Your task to perform on an android device: Open network settings Image 0: 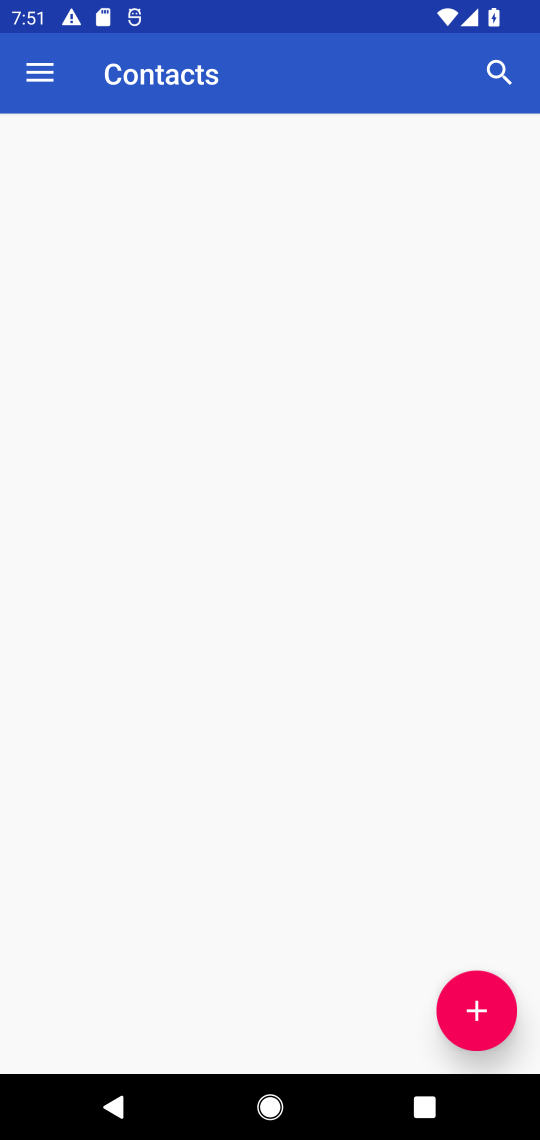
Step 0: press home button
Your task to perform on an android device: Open network settings Image 1: 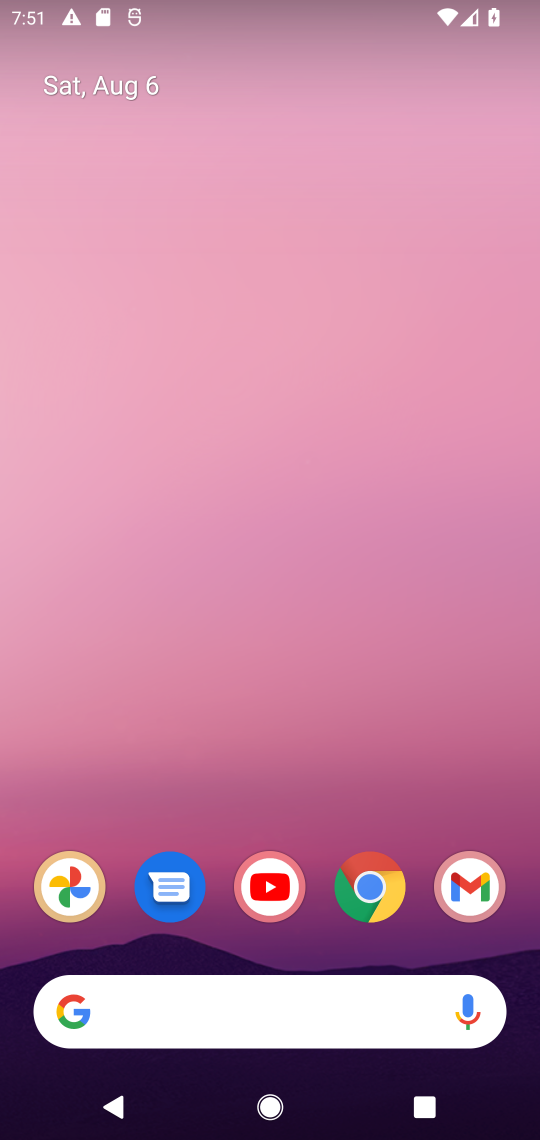
Step 1: drag from (321, 805) to (246, 336)
Your task to perform on an android device: Open network settings Image 2: 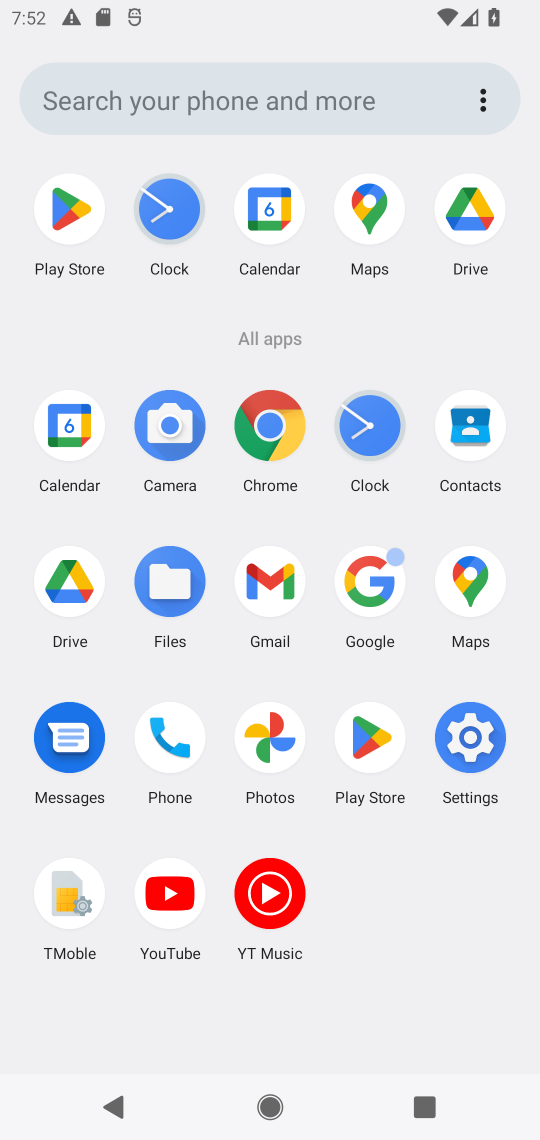
Step 2: click (460, 741)
Your task to perform on an android device: Open network settings Image 3: 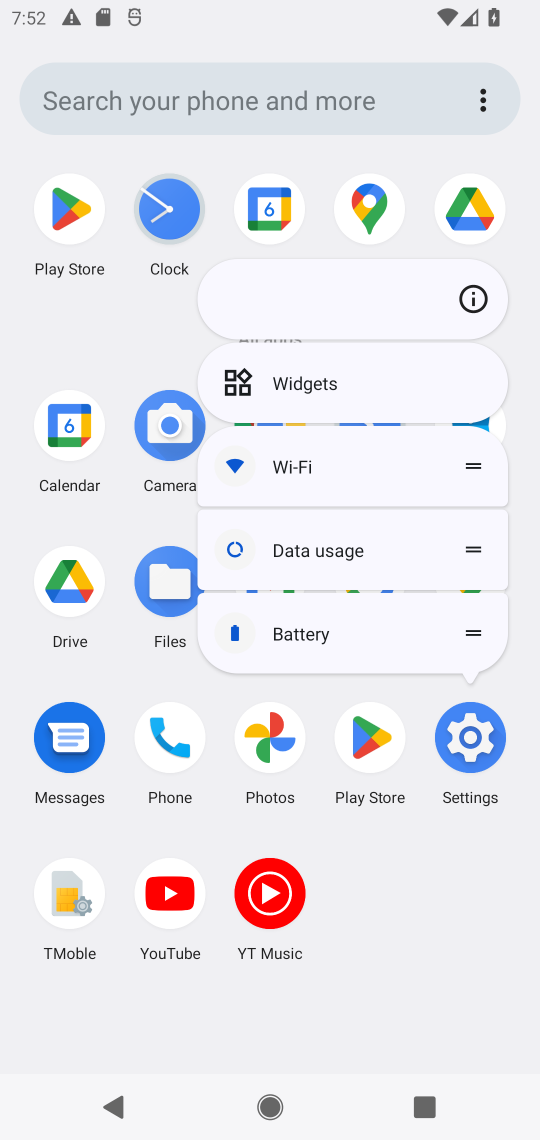
Step 3: click (475, 750)
Your task to perform on an android device: Open network settings Image 4: 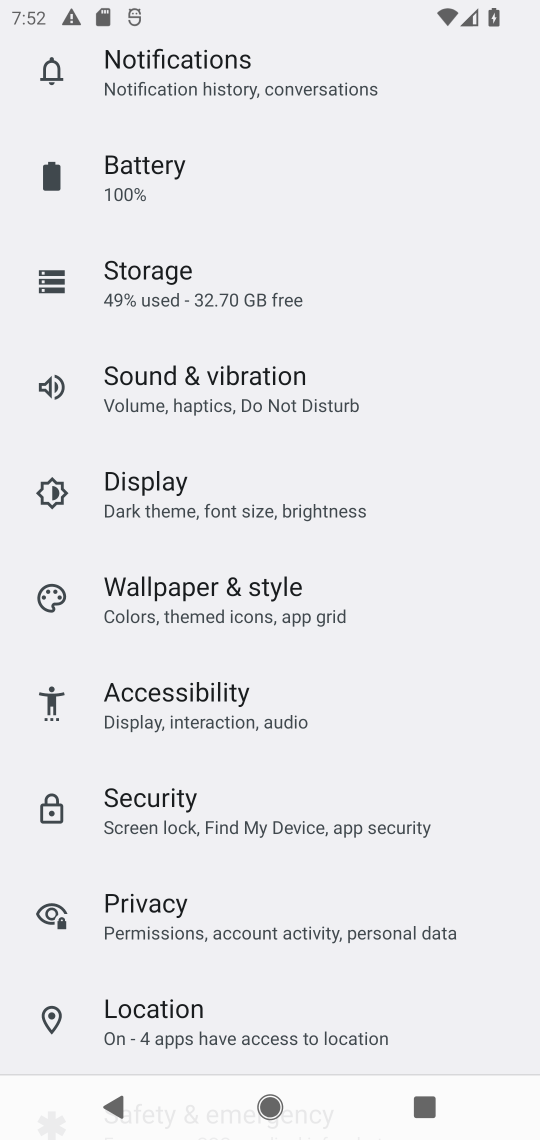
Step 4: drag from (228, 82) to (293, 511)
Your task to perform on an android device: Open network settings Image 5: 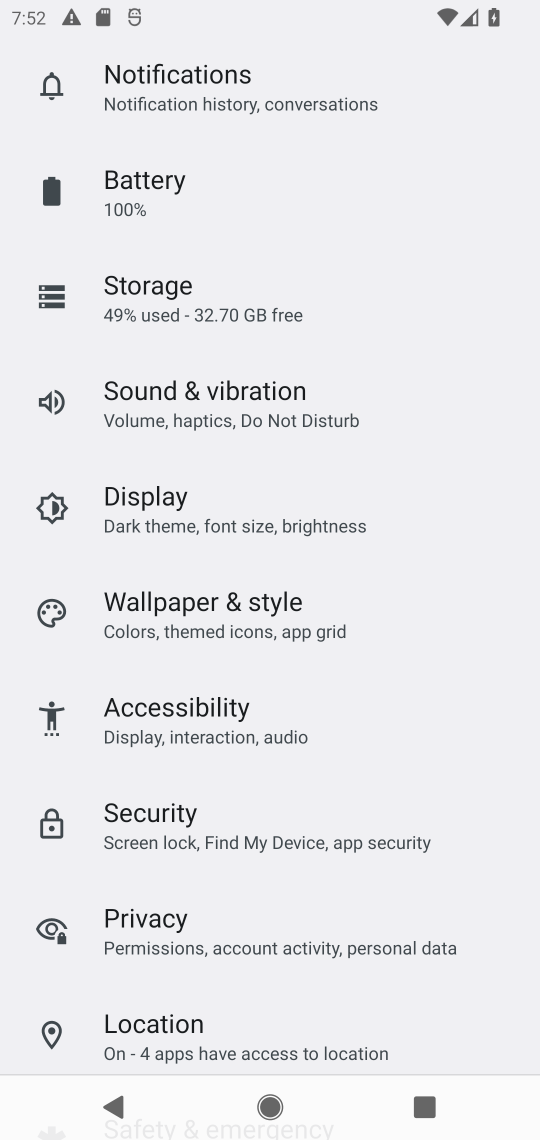
Step 5: drag from (295, 243) to (338, 601)
Your task to perform on an android device: Open network settings Image 6: 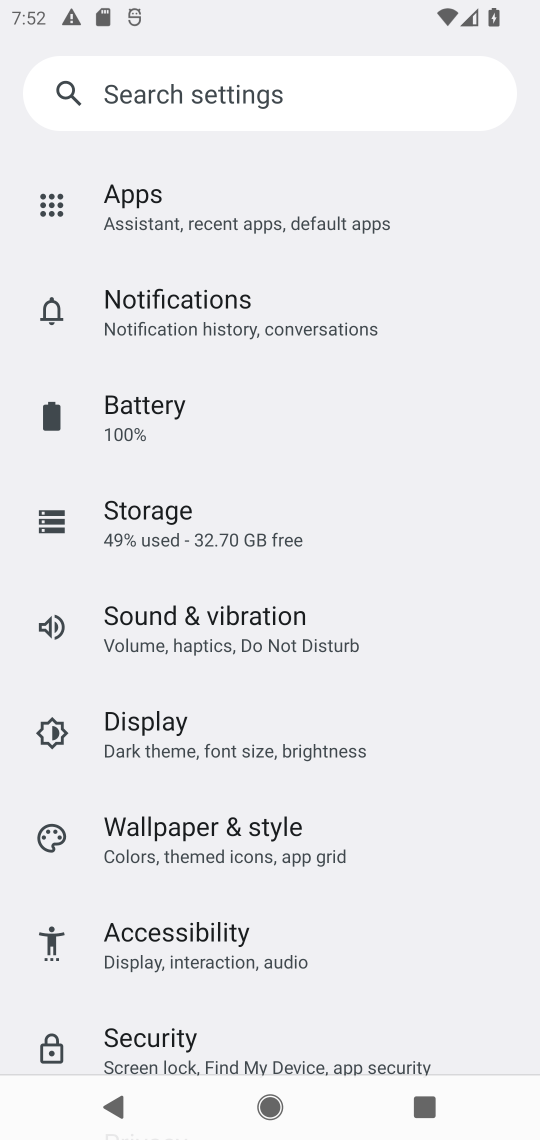
Step 6: drag from (281, 357) to (339, 803)
Your task to perform on an android device: Open network settings Image 7: 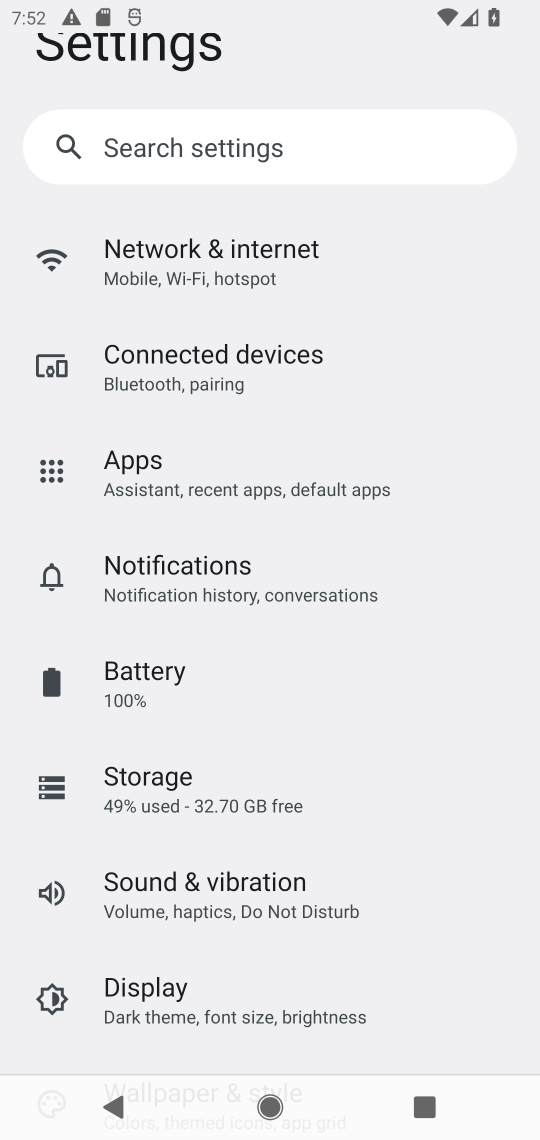
Step 7: click (269, 270)
Your task to perform on an android device: Open network settings Image 8: 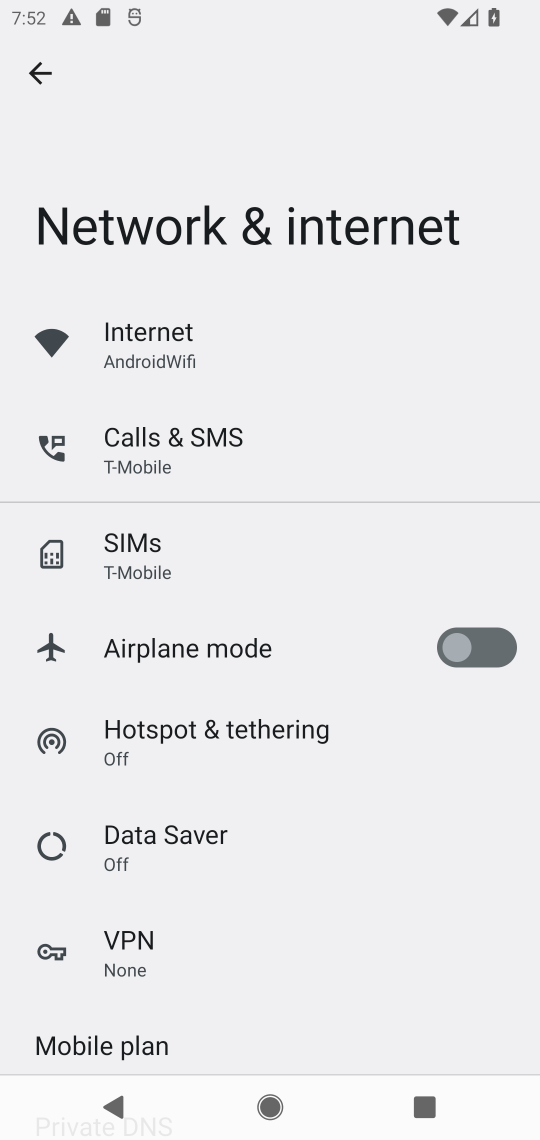
Step 8: task complete